Your task to perform on an android device: change notification settings in the gmail app Image 0: 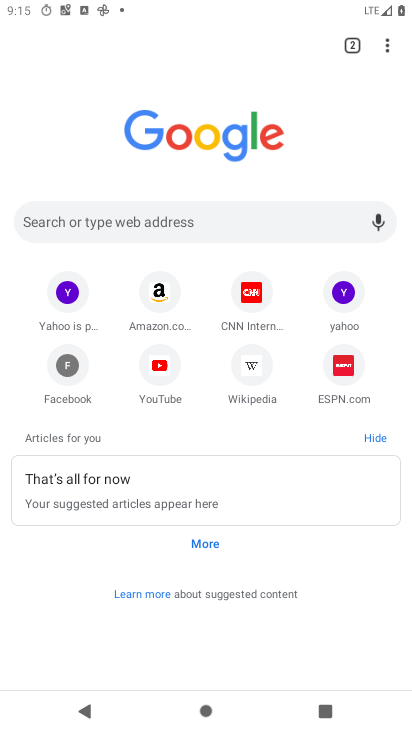
Step 0: press home button
Your task to perform on an android device: change notification settings in the gmail app Image 1: 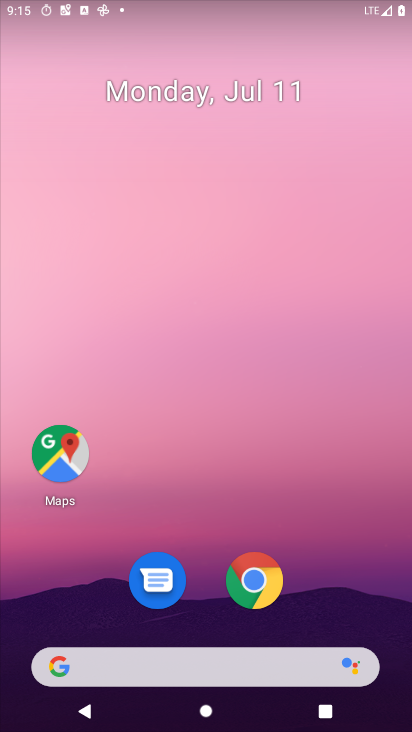
Step 1: drag from (326, 495) to (303, 15)
Your task to perform on an android device: change notification settings in the gmail app Image 2: 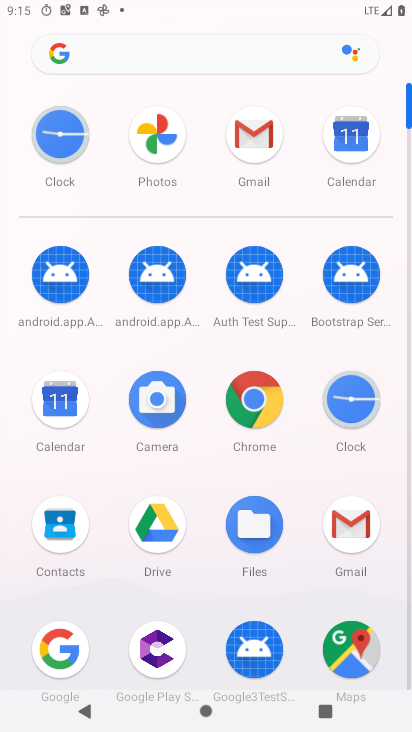
Step 2: click (256, 139)
Your task to perform on an android device: change notification settings in the gmail app Image 3: 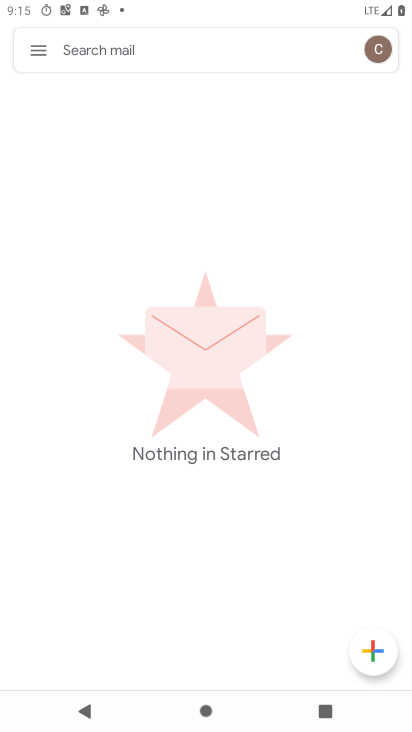
Step 3: click (37, 46)
Your task to perform on an android device: change notification settings in the gmail app Image 4: 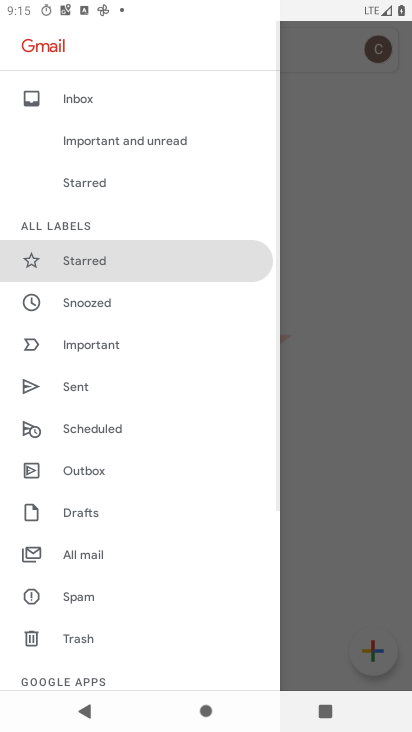
Step 4: drag from (121, 578) to (144, 172)
Your task to perform on an android device: change notification settings in the gmail app Image 5: 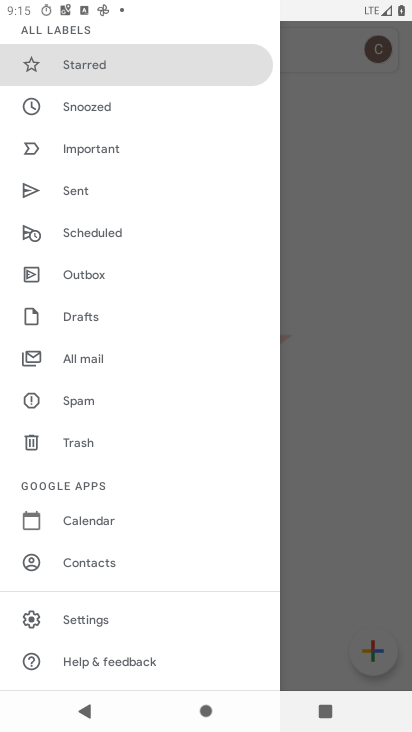
Step 5: click (96, 620)
Your task to perform on an android device: change notification settings in the gmail app Image 6: 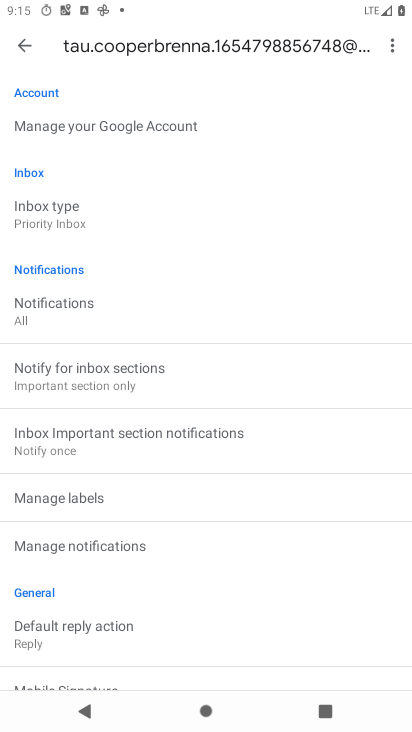
Step 6: click (134, 547)
Your task to perform on an android device: change notification settings in the gmail app Image 7: 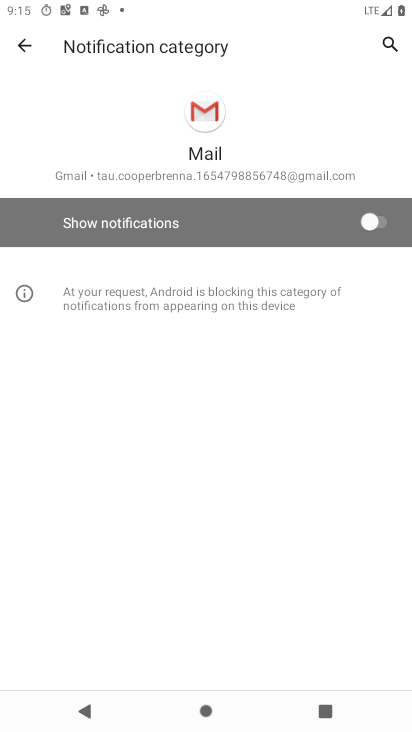
Step 7: click (373, 218)
Your task to perform on an android device: change notification settings in the gmail app Image 8: 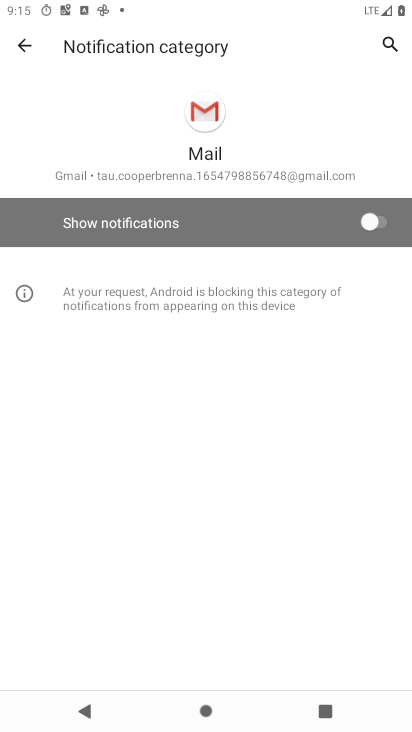
Step 8: click (384, 222)
Your task to perform on an android device: change notification settings in the gmail app Image 9: 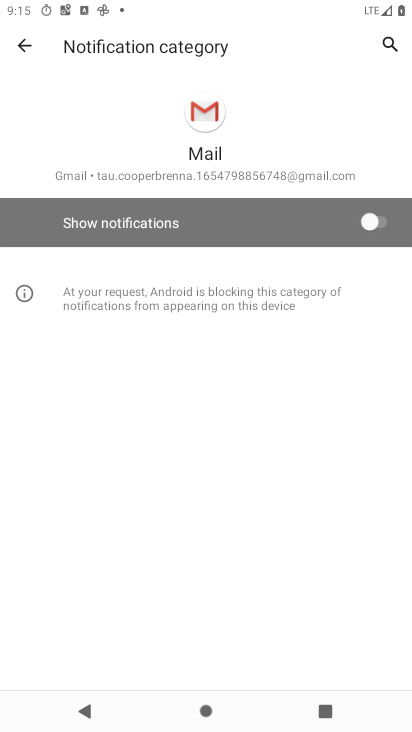
Step 9: click (25, 36)
Your task to perform on an android device: change notification settings in the gmail app Image 10: 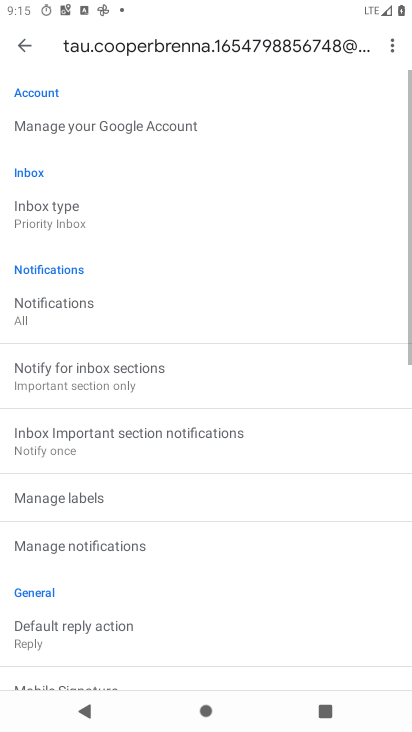
Step 10: click (22, 43)
Your task to perform on an android device: change notification settings in the gmail app Image 11: 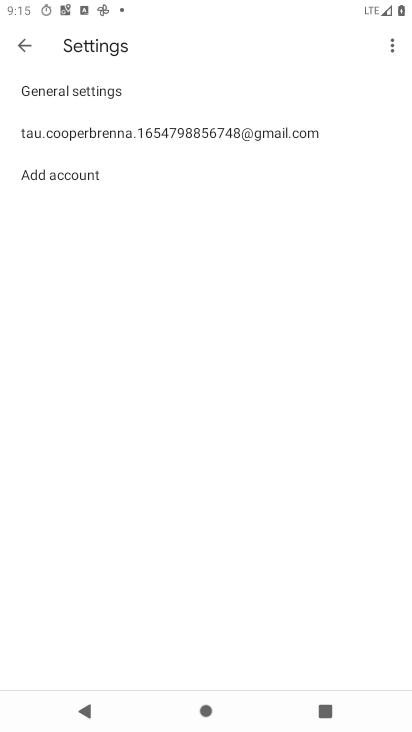
Step 11: click (99, 79)
Your task to perform on an android device: change notification settings in the gmail app Image 12: 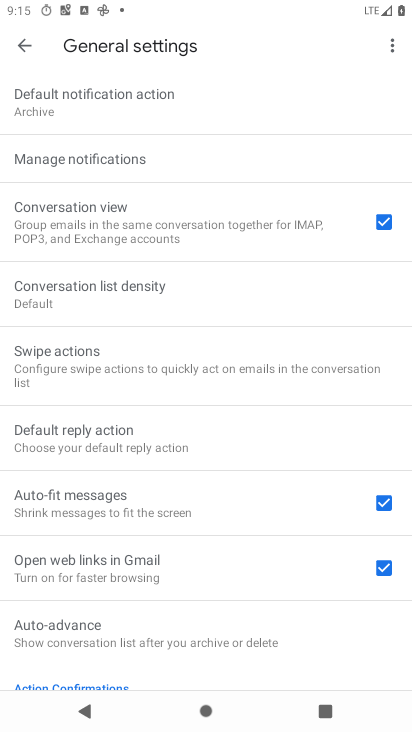
Step 12: click (130, 163)
Your task to perform on an android device: change notification settings in the gmail app Image 13: 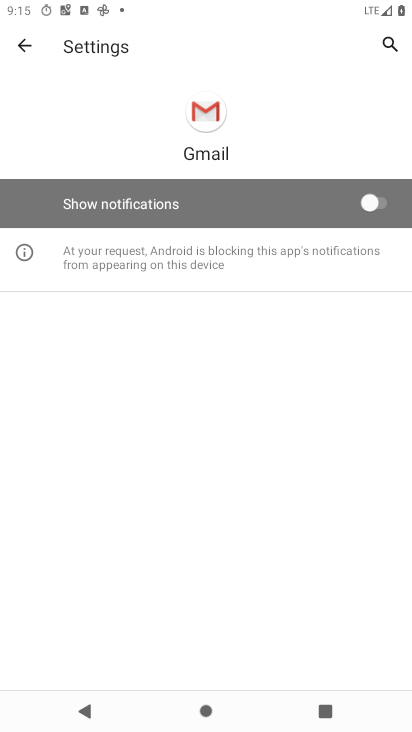
Step 13: click (375, 198)
Your task to perform on an android device: change notification settings in the gmail app Image 14: 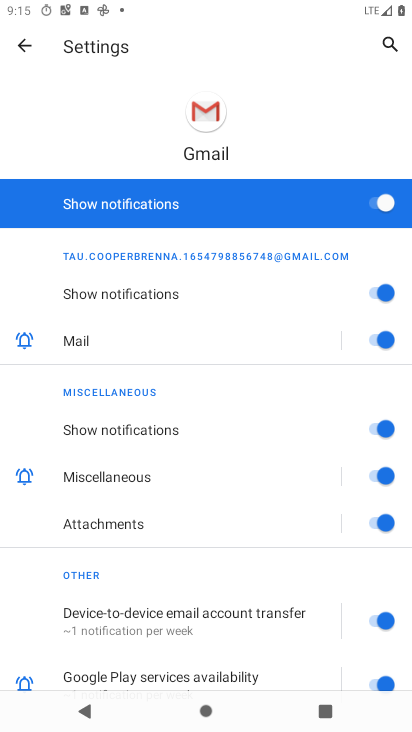
Step 14: task complete